Your task to perform on an android device: Open my contact list Image 0: 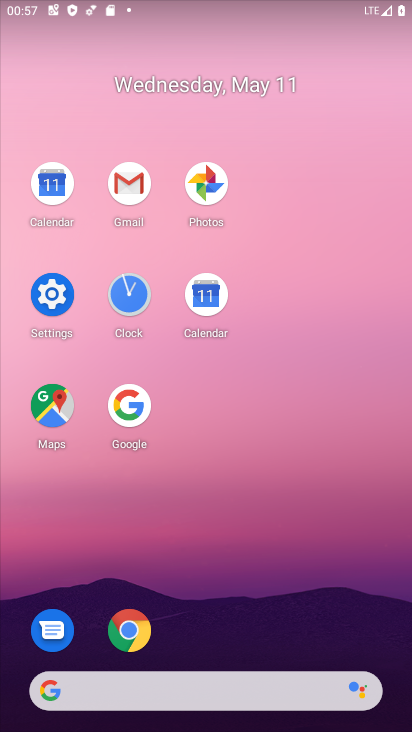
Step 0: drag from (223, 605) to (197, 86)
Your task to perform on an android device: Open my contact list Image 1: 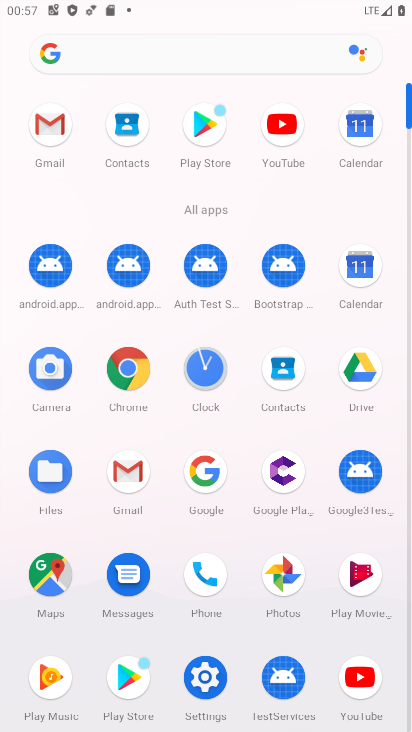
Step 1: click (271, 369)
Your task to perform on an android device: Open my contact list Image 2: 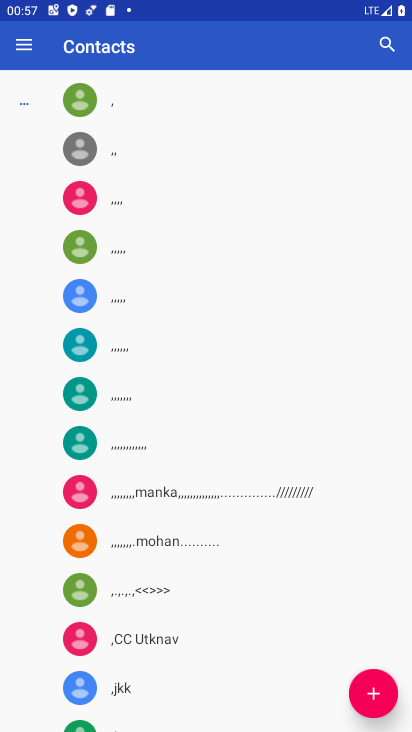
Step 2: task complete